Your task to perform on an android device: empty trash in google photos Image 0: 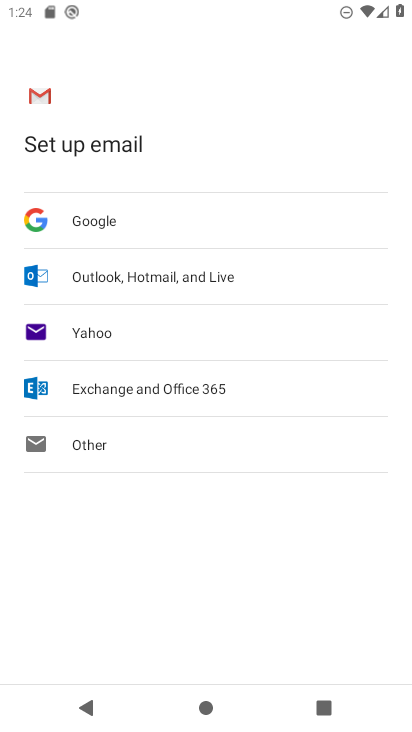
Step 0: press home button
Your task to perform on an android device: empty trash in google photos Image 1: 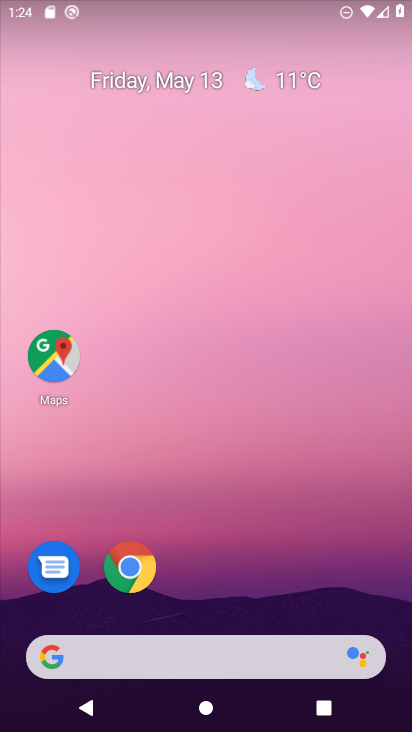
Step 1: drag from (210, 601) to (222, 19)
Your task to perform on an android device: empty trash in google photos Image 2: 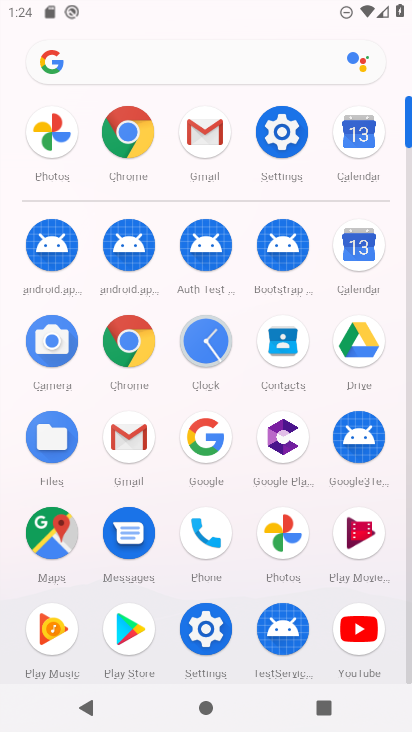
Step 2: click (51, 128)
Your task to perform on an android device: empty trash in google photos Image 3: 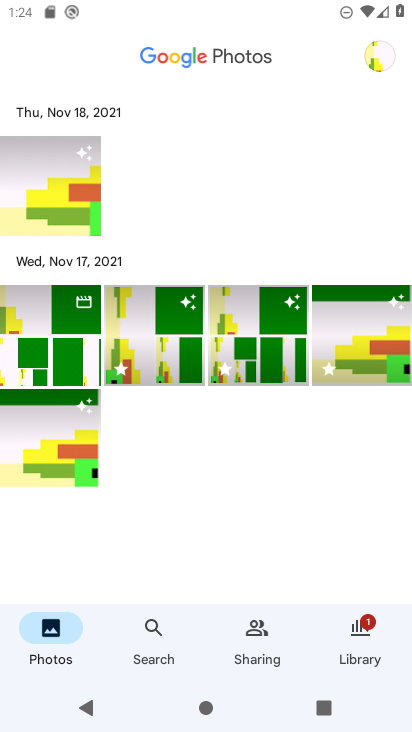
Step 3: click (154, 627)
Your task to perform on an android device: empty trash in google photos Image 4: 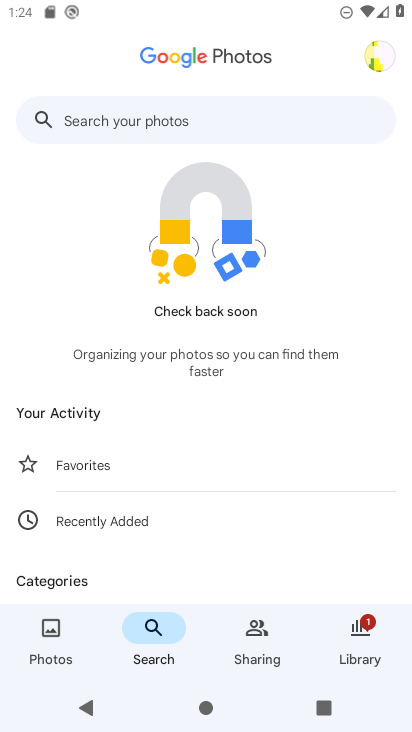
Step 4: click (104, 115)
Your task to perform on an android device: empty trash in google photos Image 5: 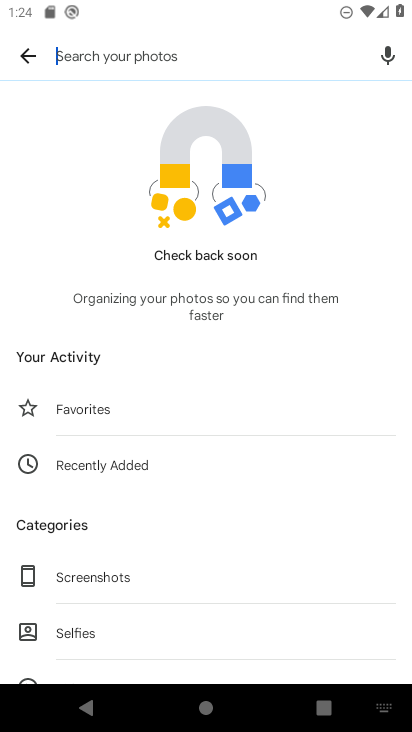
Step 5: drag from (153, 613) to (151, 150)
Your task to perform on an android device: empty trash in google photos Image 6: 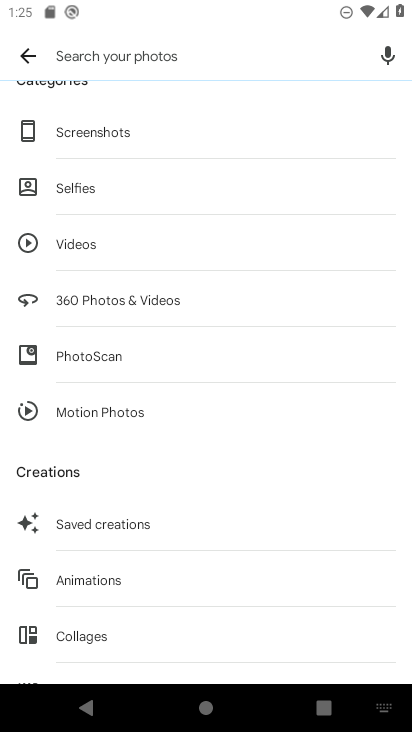
Step 6: click (32, 61)
Your task to perform on an android device: empty trash in google photos Image 7: 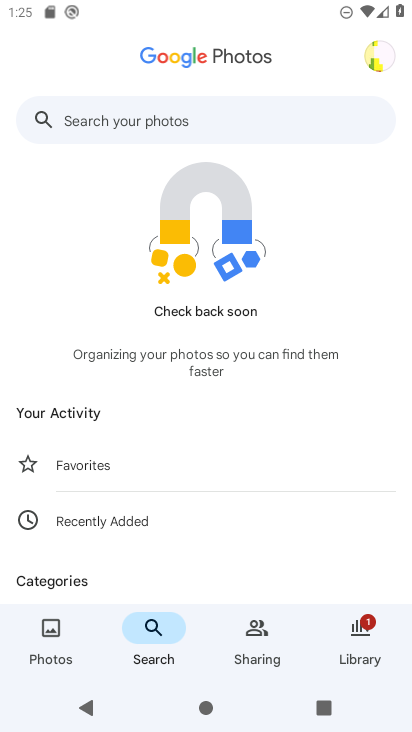
Step 7: click (362, 632)
Your task to perform on an android device: empty trash in google photos Image 8: 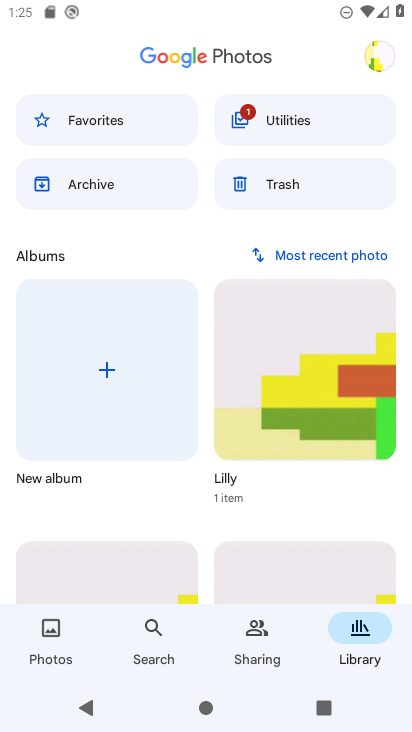
Step 8: click (265, 181)
Your task to perform on an android device: empty trash in google photos Image 9: 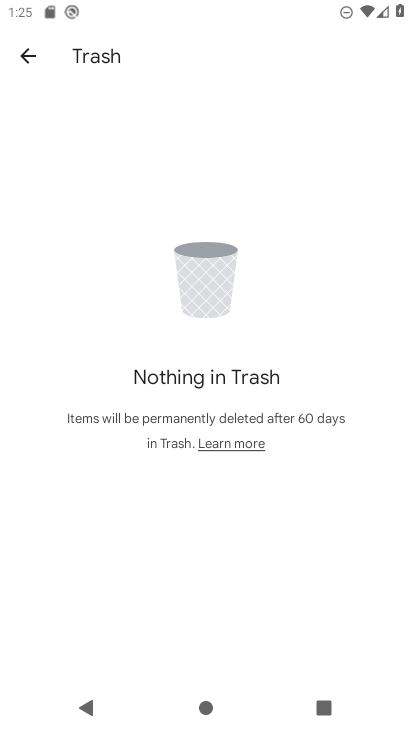
Step 9: task complete